Your task to perform on an android device: star an email in the gmail app Image 0: 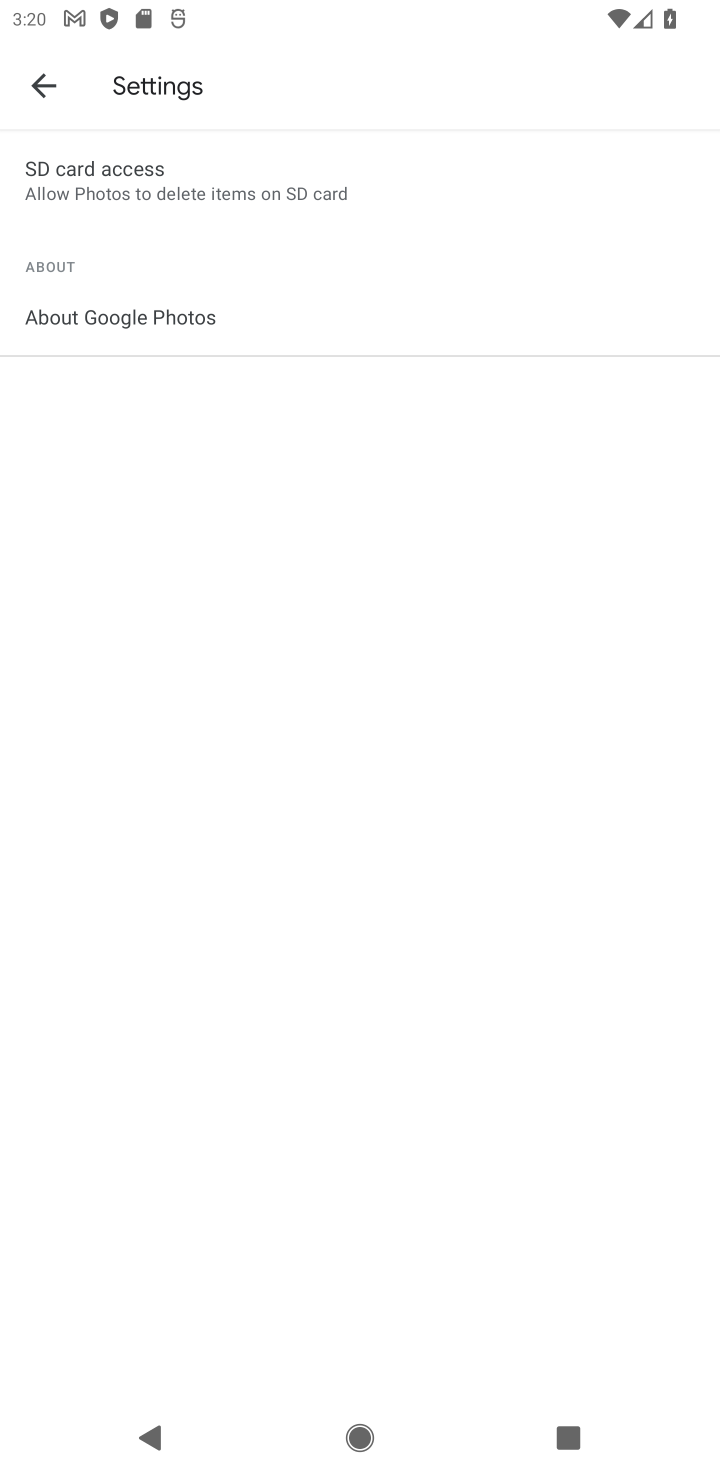
Step 0: press home button
Your task to perform on an android device: star an email in the gmail app Image 1: 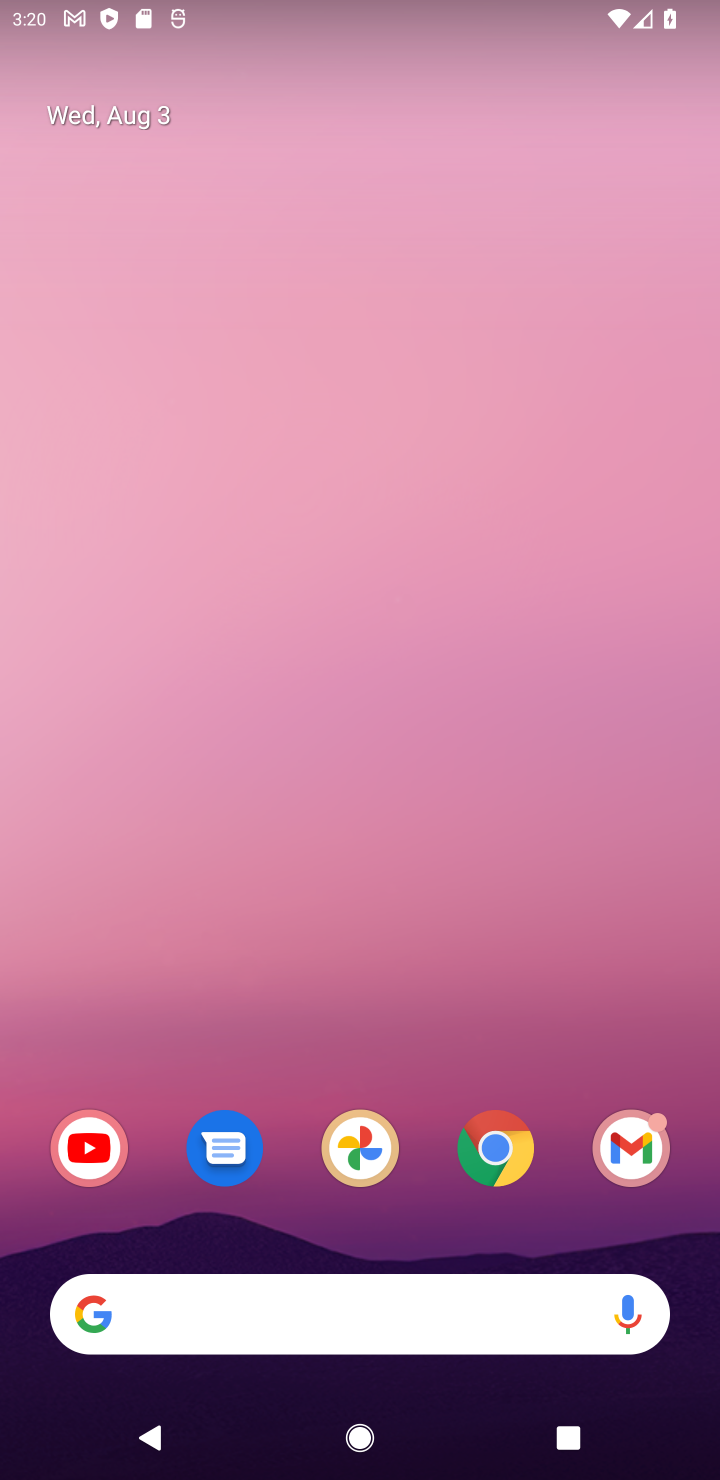
Step 1: drag from (420, 985) to (424, 92)
Your task to perform on an android device: star an email in the gmail app Image 2: 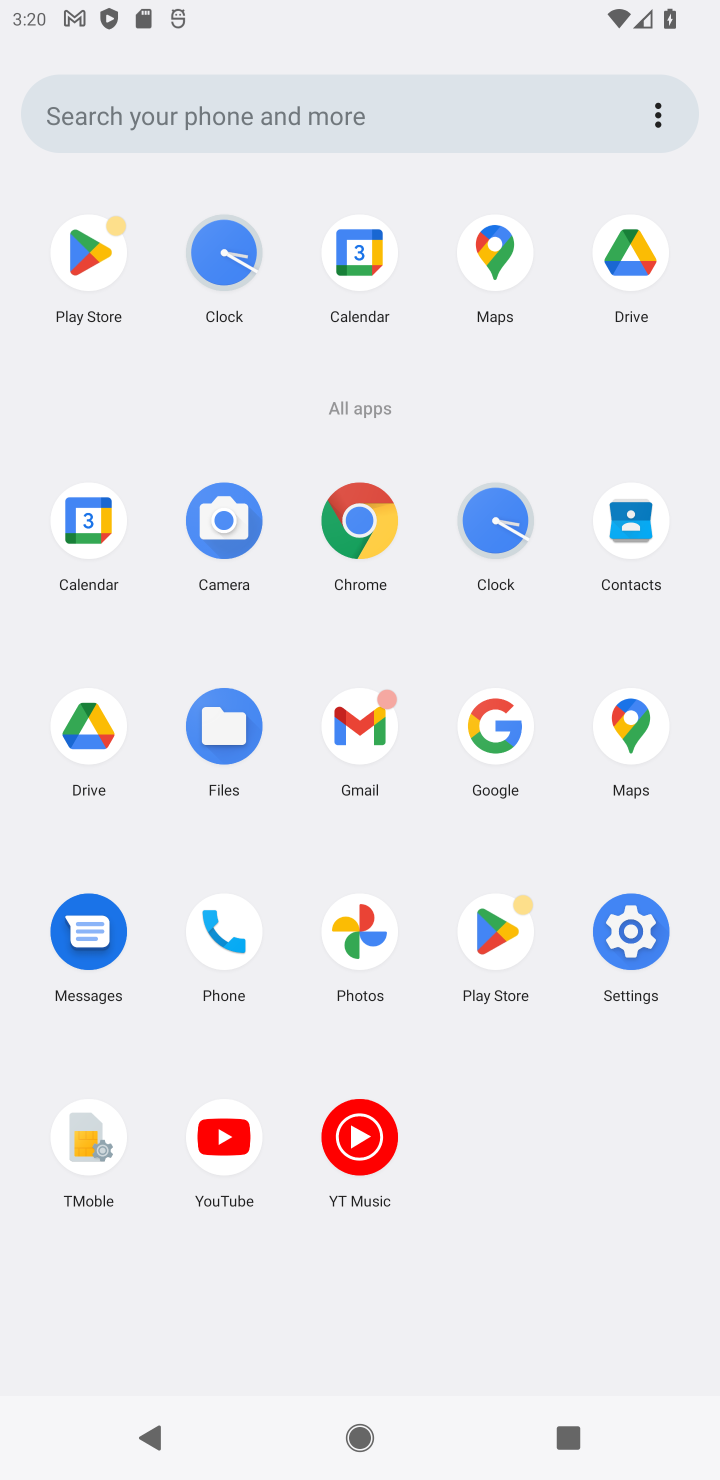
Step 2: click (366, 724)
Your task to perform on an android device: star an email in the gmail app Image 3: 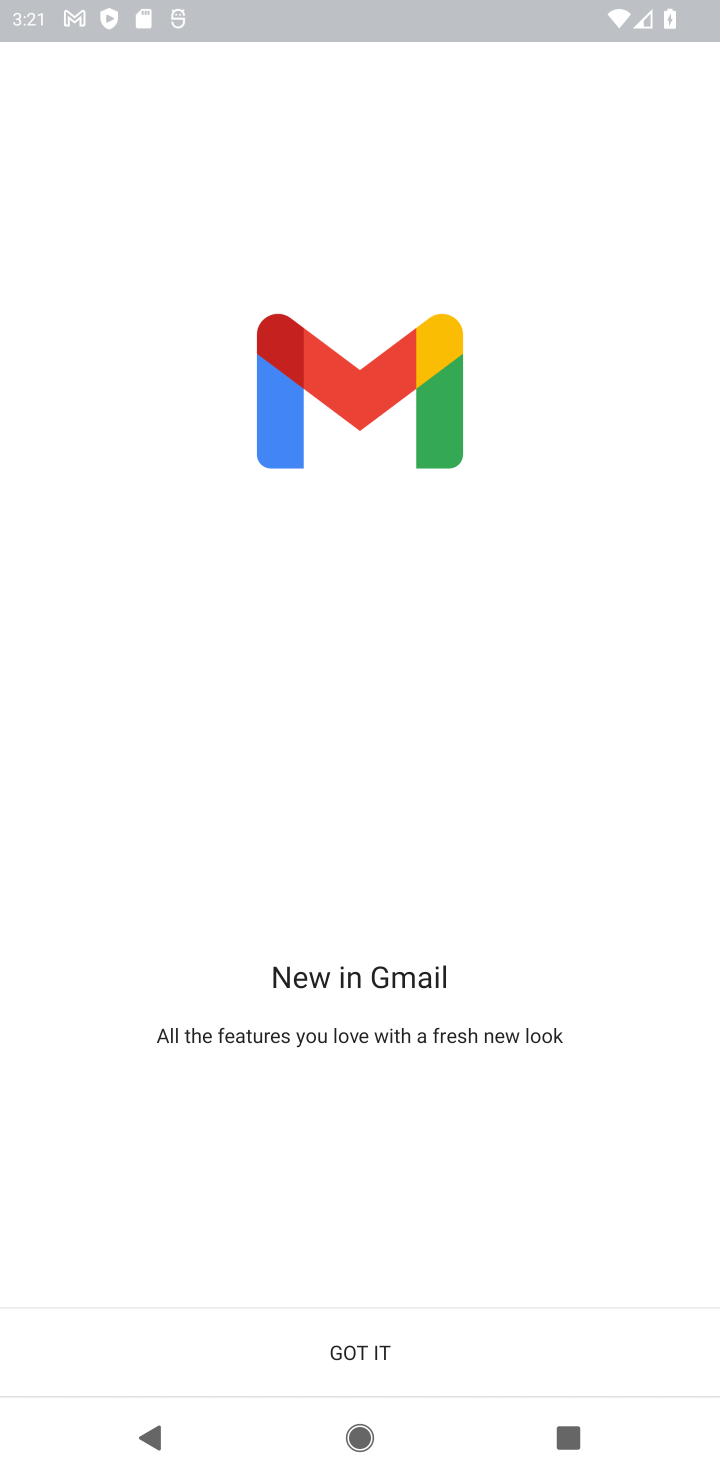
Step 3: click (342, 1357)
Your task to perform on an android device: star an email in the gmail app Image 4: 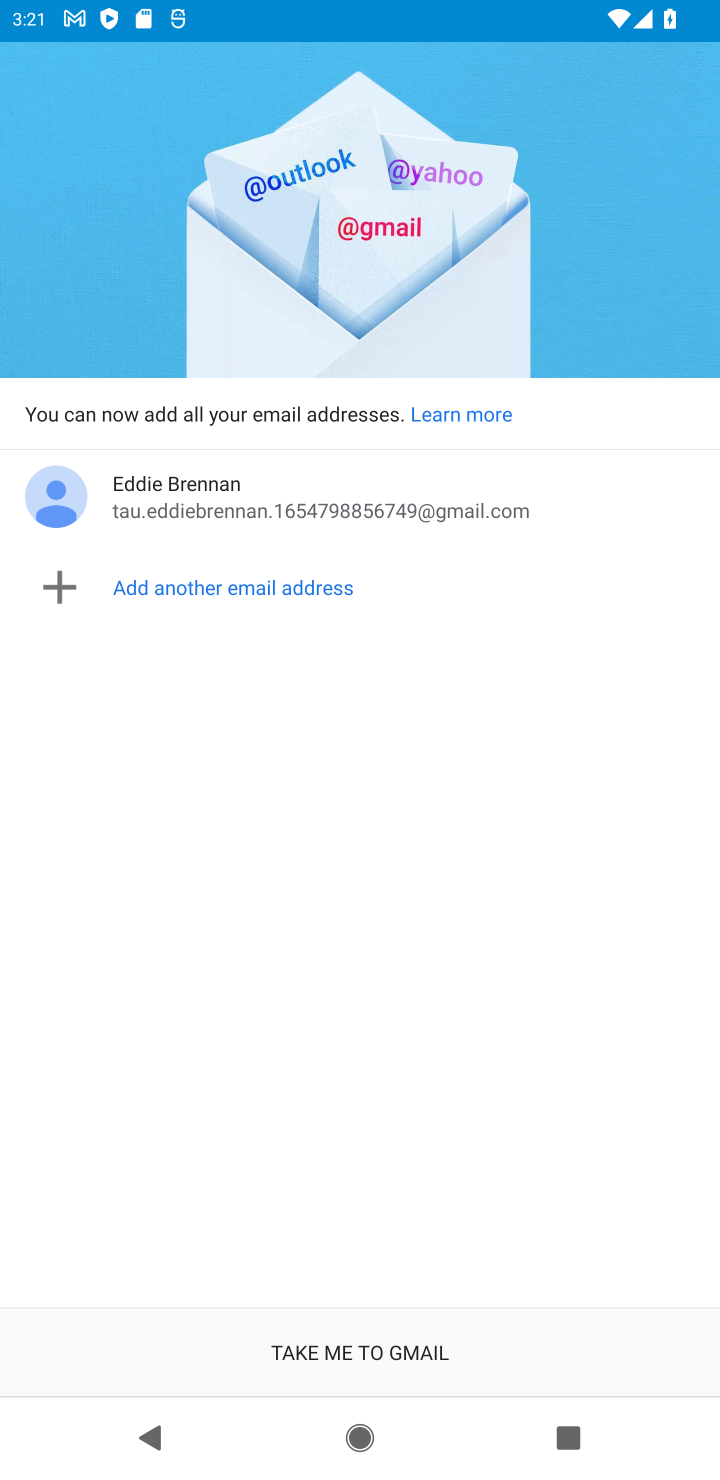
Step 4: click (342, 1357)
Your task to perform on an android device: star an email in the gmail app Image 5: 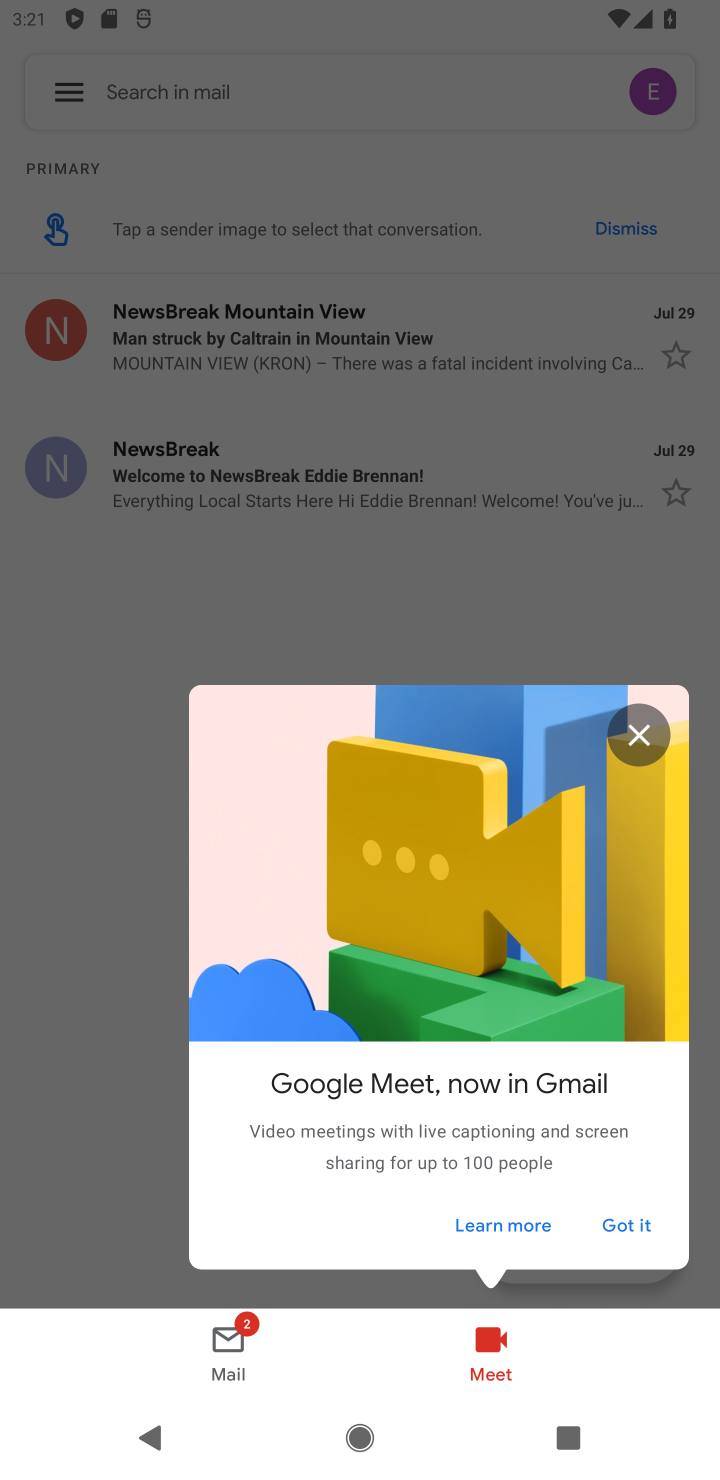
Step 5: click (618, 1228)
Your task to perform on an android device: star an email in the gmail app Image 6: 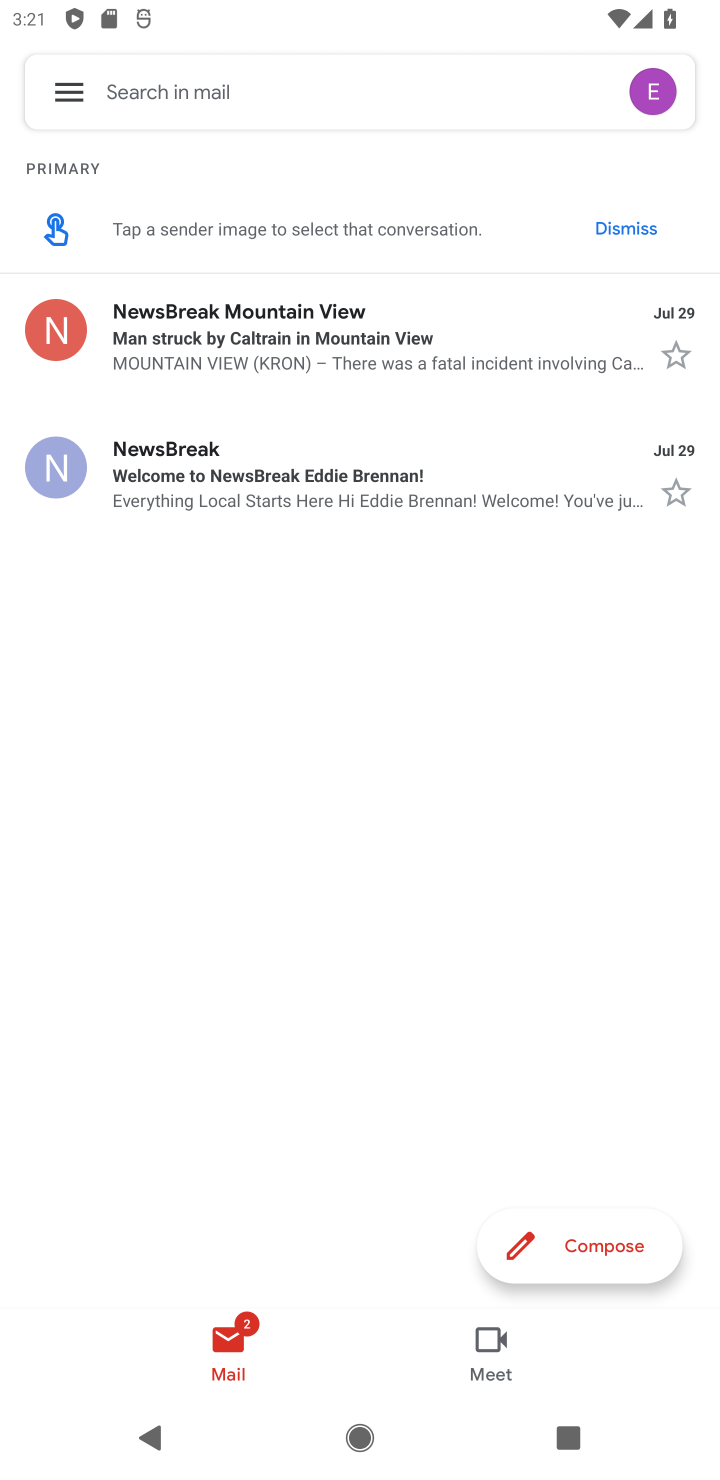
Step 6: click (687, 348)
Your task to perform on an android device: star an email in the gmail app Image 7: 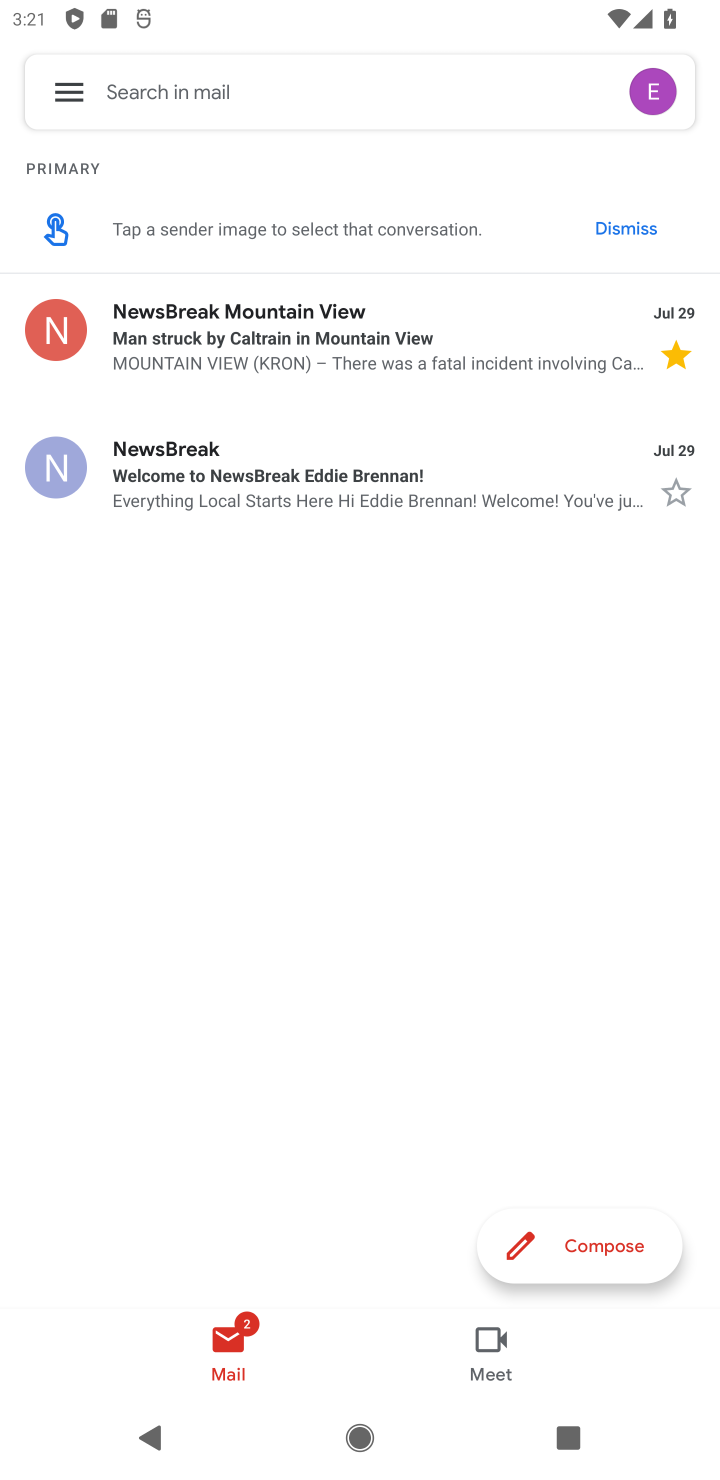
Step 7: task complete